Your task to perform on an android device: turn on javascript in the chrome app Image 0: 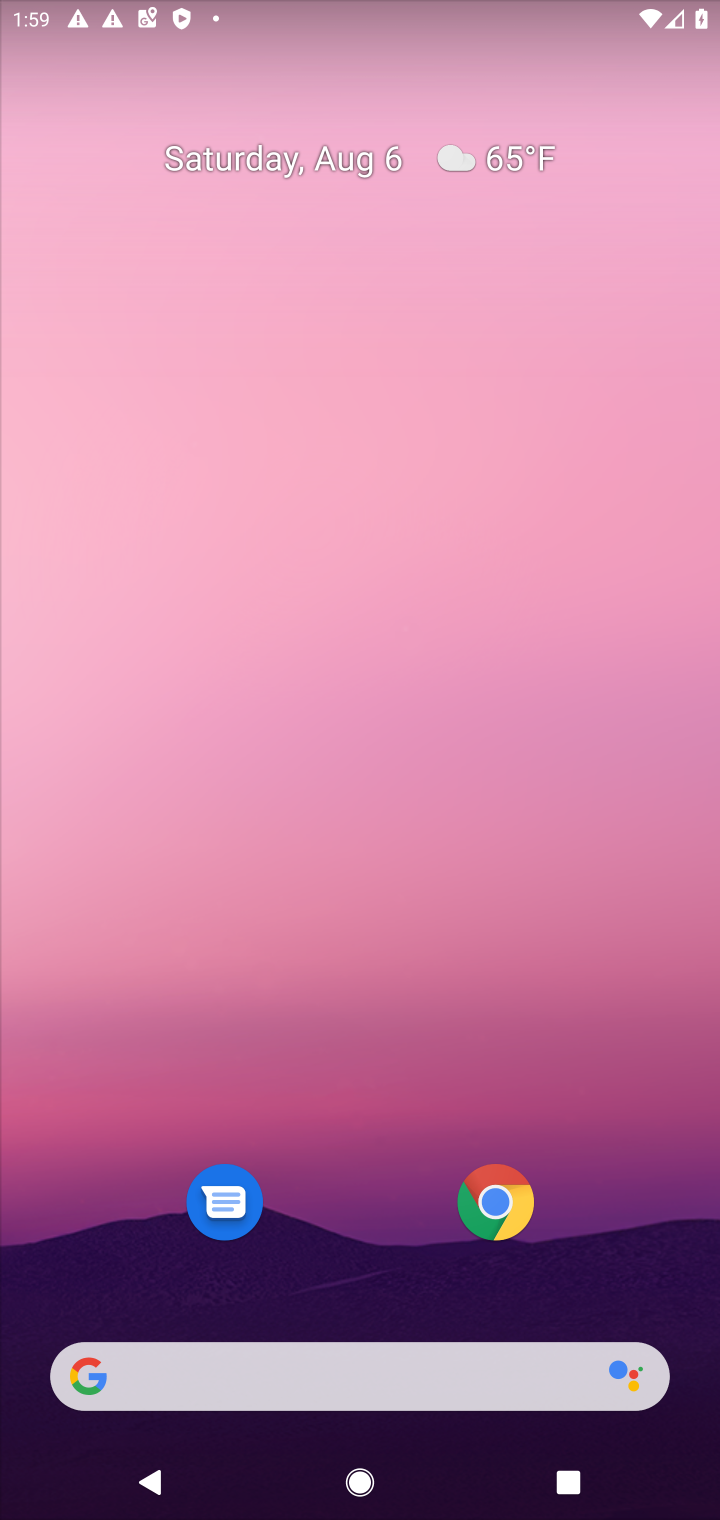
Step 0: click (505, 1218)
Your task to perform on an android device: turn on javascript in the chrome app Image 1: 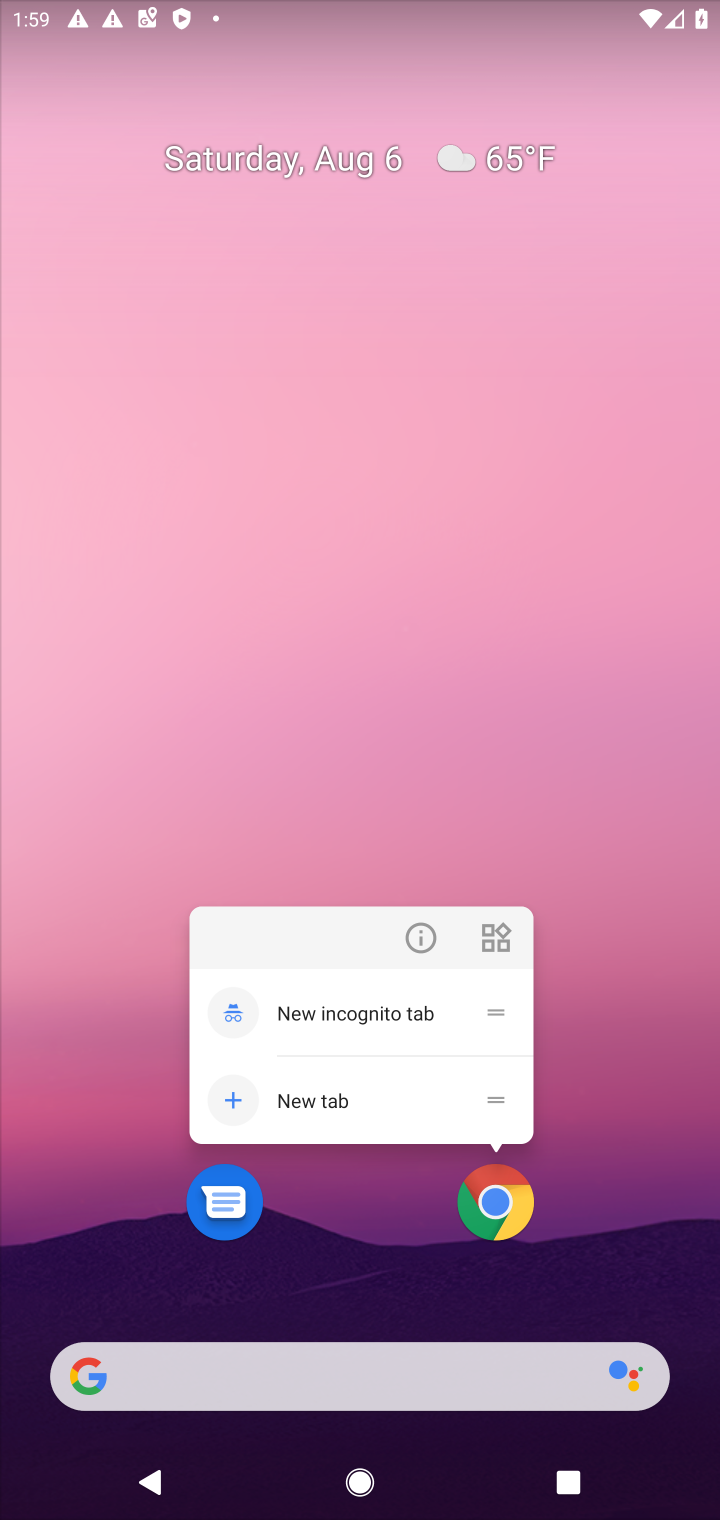
Step 1: click (503, 1191)
Your task to perform on an android device: turn on javascript in the chrome app Image 2: 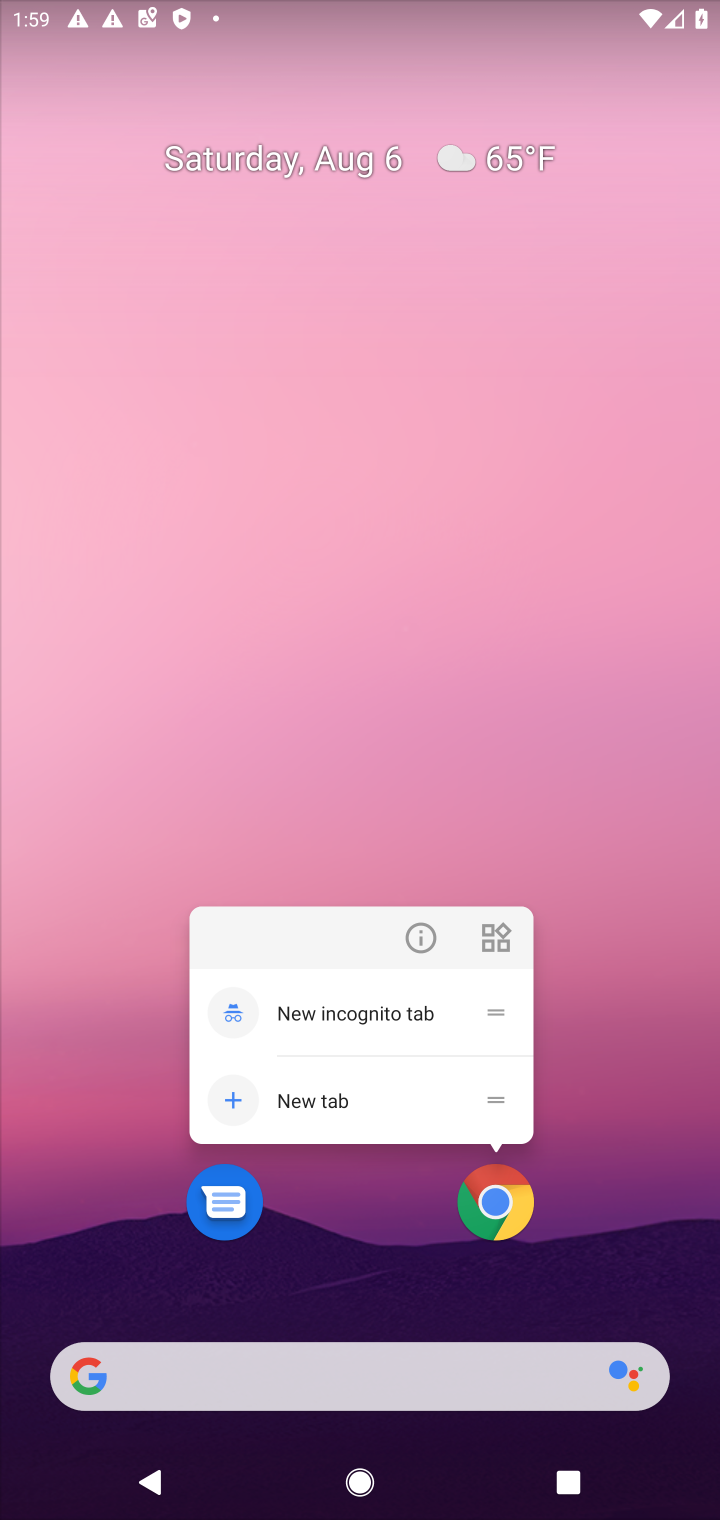
Step 2: click (503, 1191)
Your task to perform on an android device: turn on javascript in the chrome app Image 3: 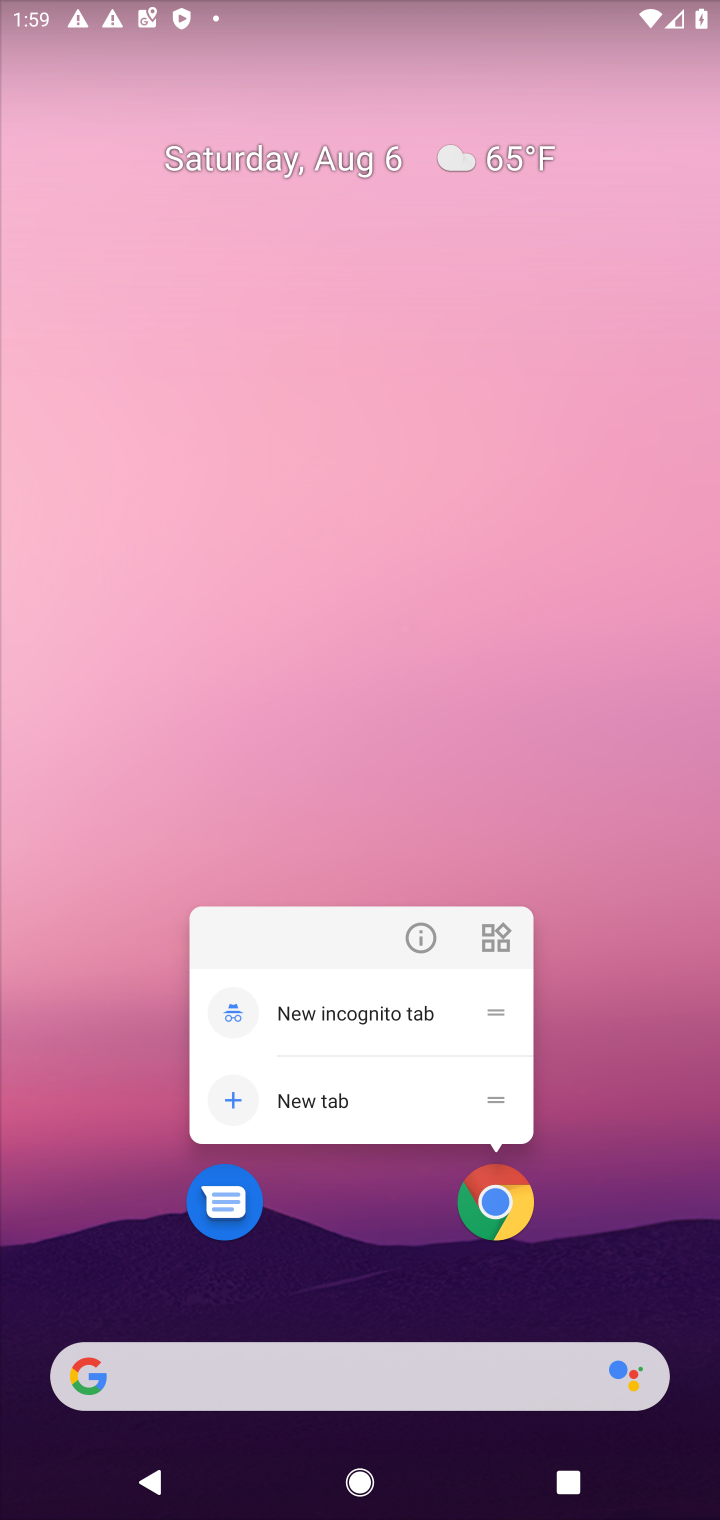
Step 3: click (503, 1207)
Your task to perform on an android device: turn on javascript in the chrome app Image 4: 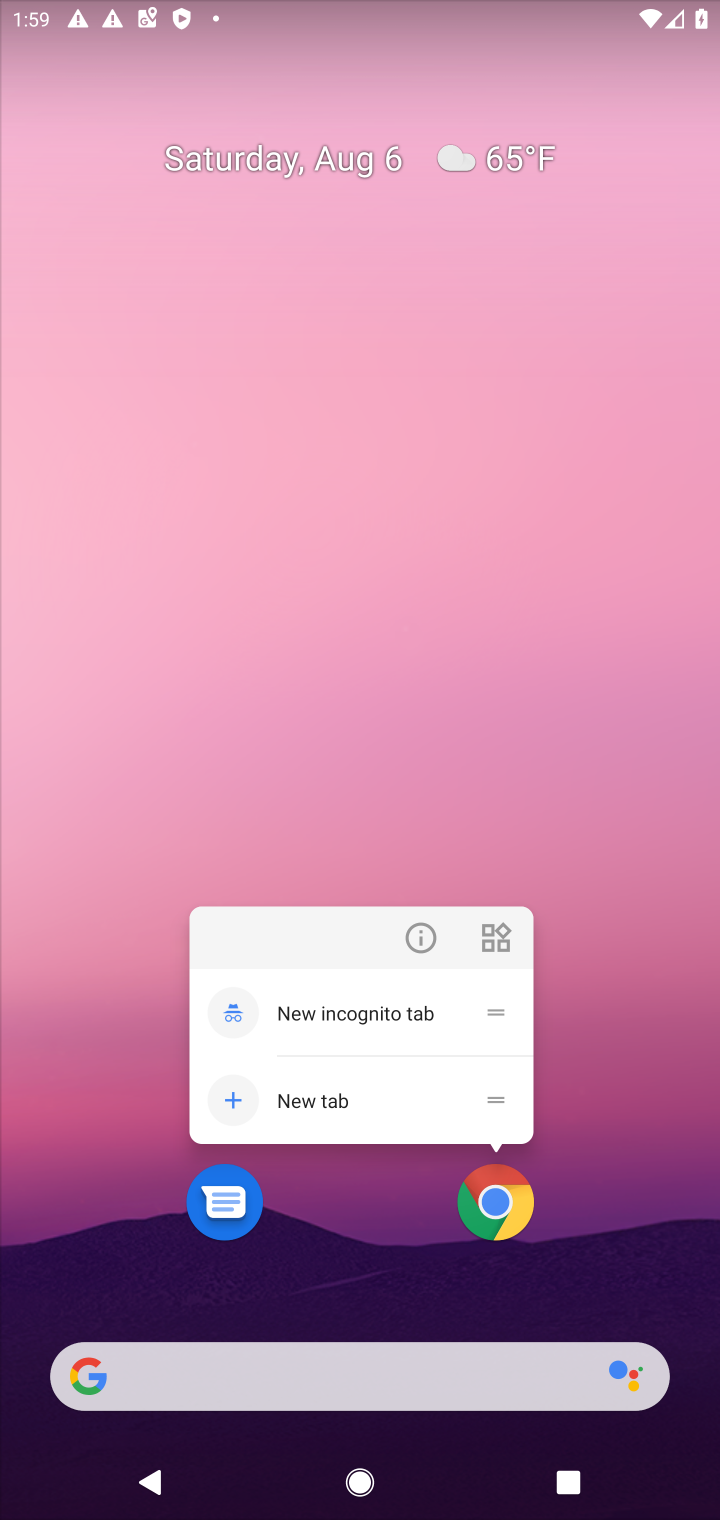
Step 4: click (503, 1207)
Your task to perform on an android device: turn on javascript in the chrome app Image 5: 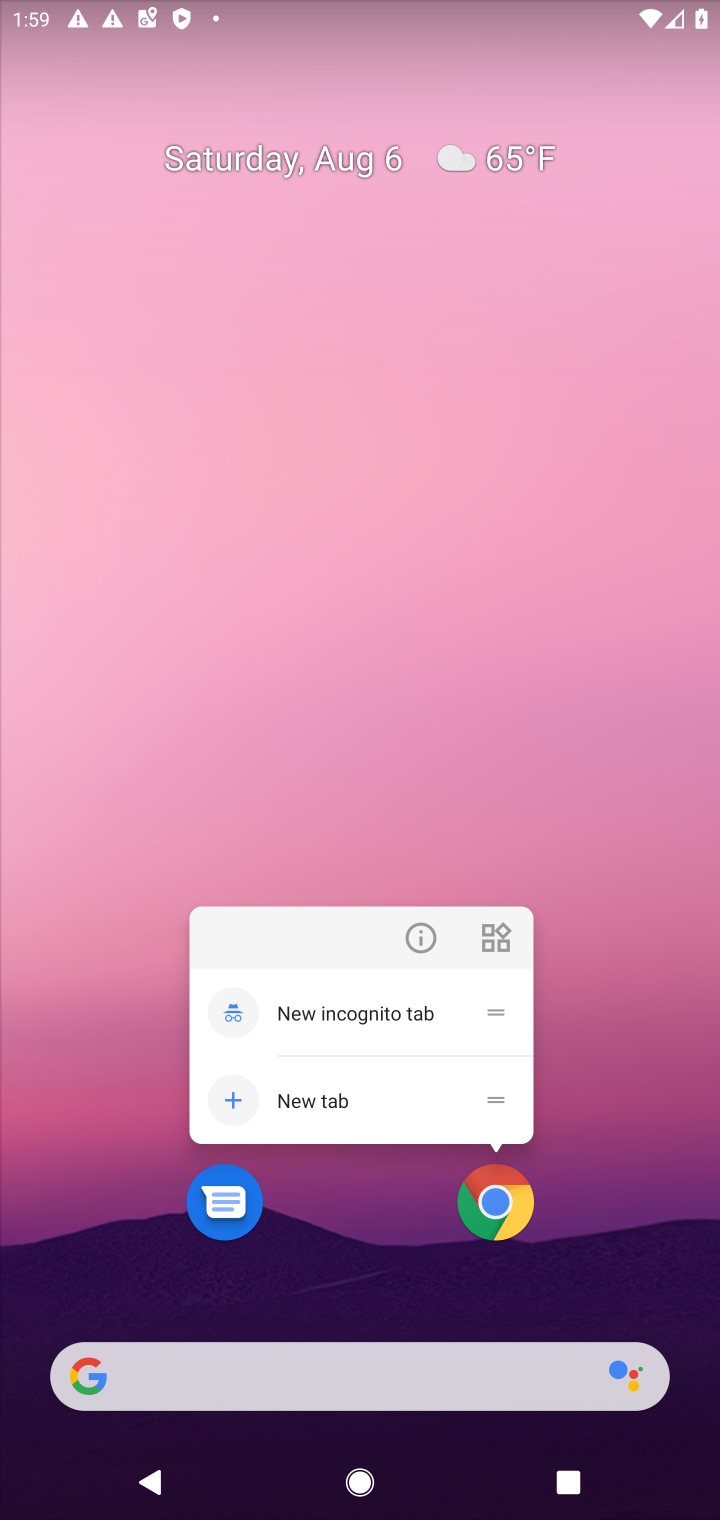
Step 5: click (459, 1159)
Your task to perform on an android device: turn on javascript in the chrome app Image 6: 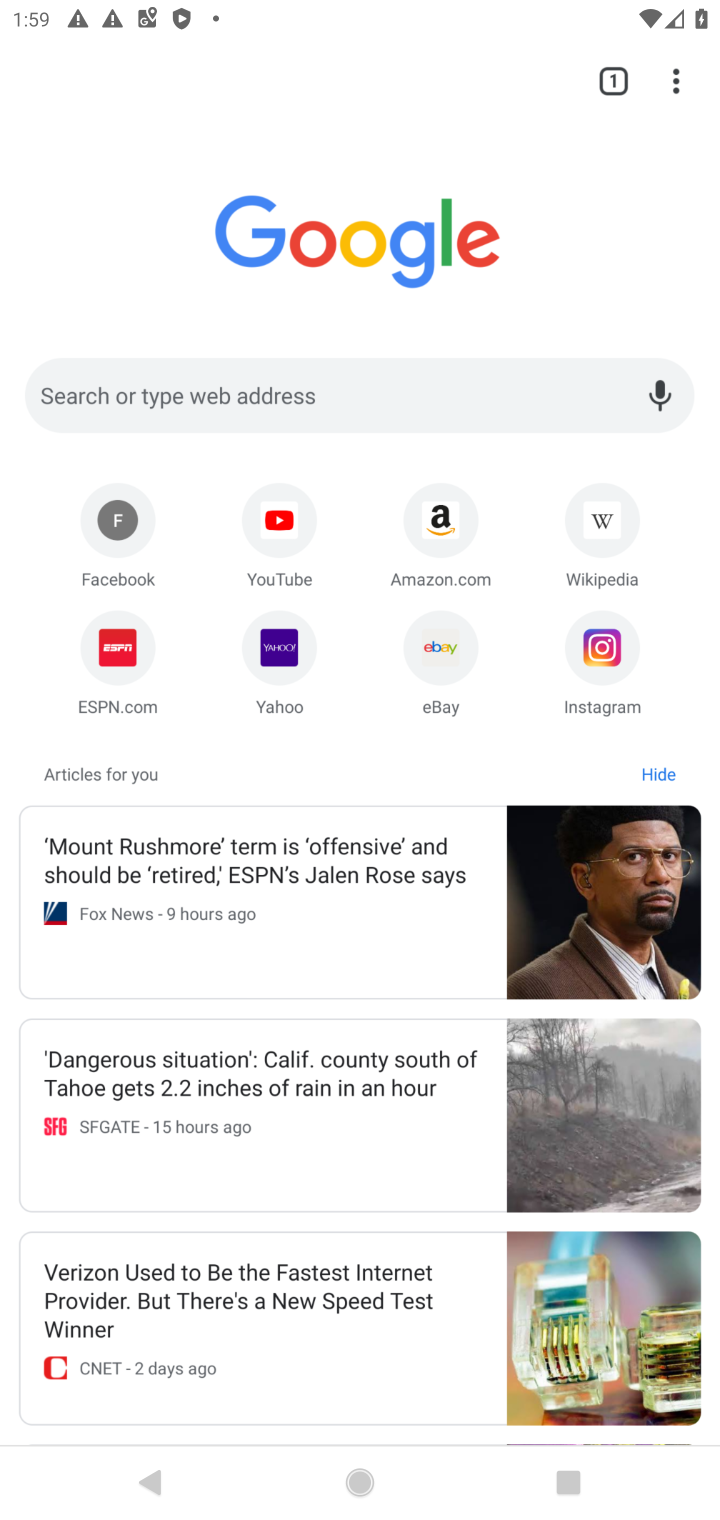
Step 6: click (486, 1222)
Your task to perform on an android device: turn on javascript in the chrome app Image 7: 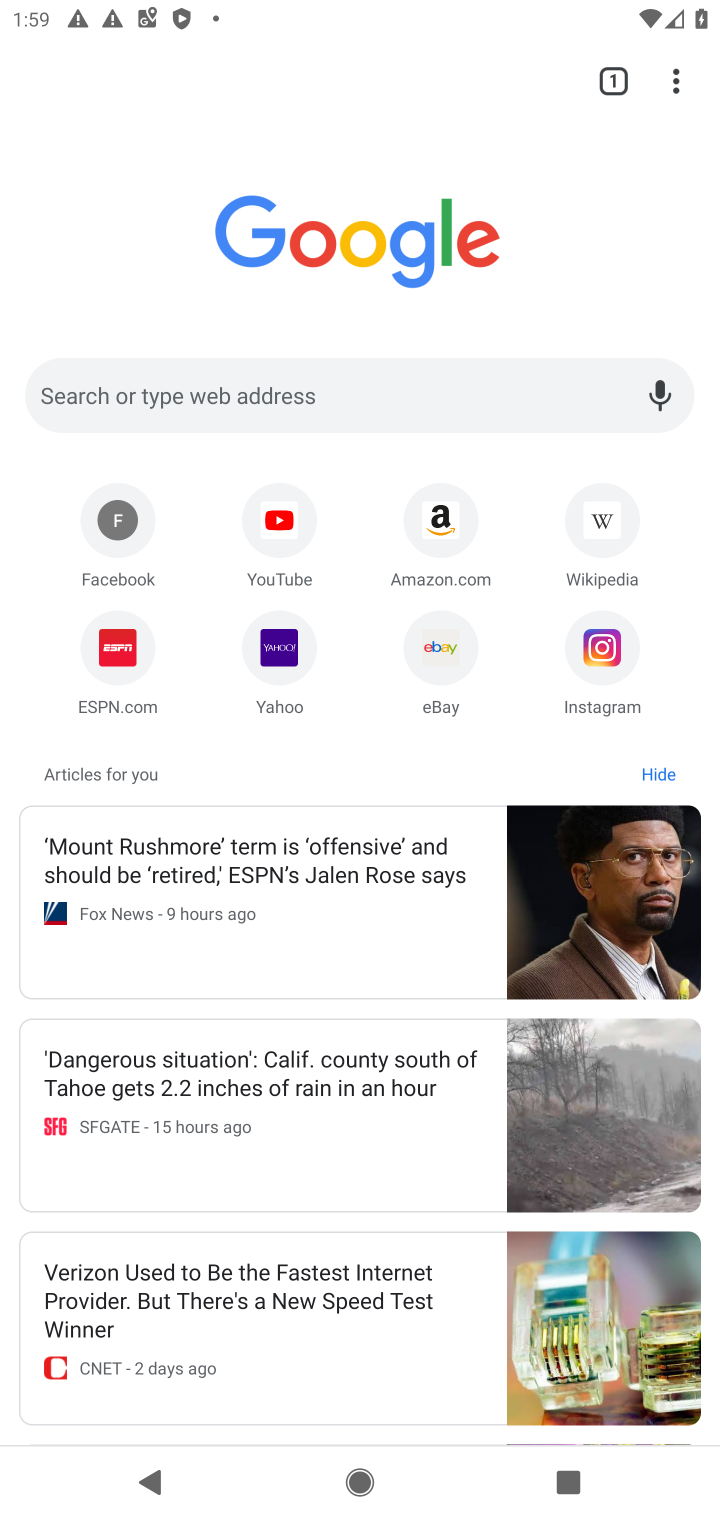
Step 7: click (685, 78)
Your task to perform on an android device: turn on javascript in the chrome app Image 8: 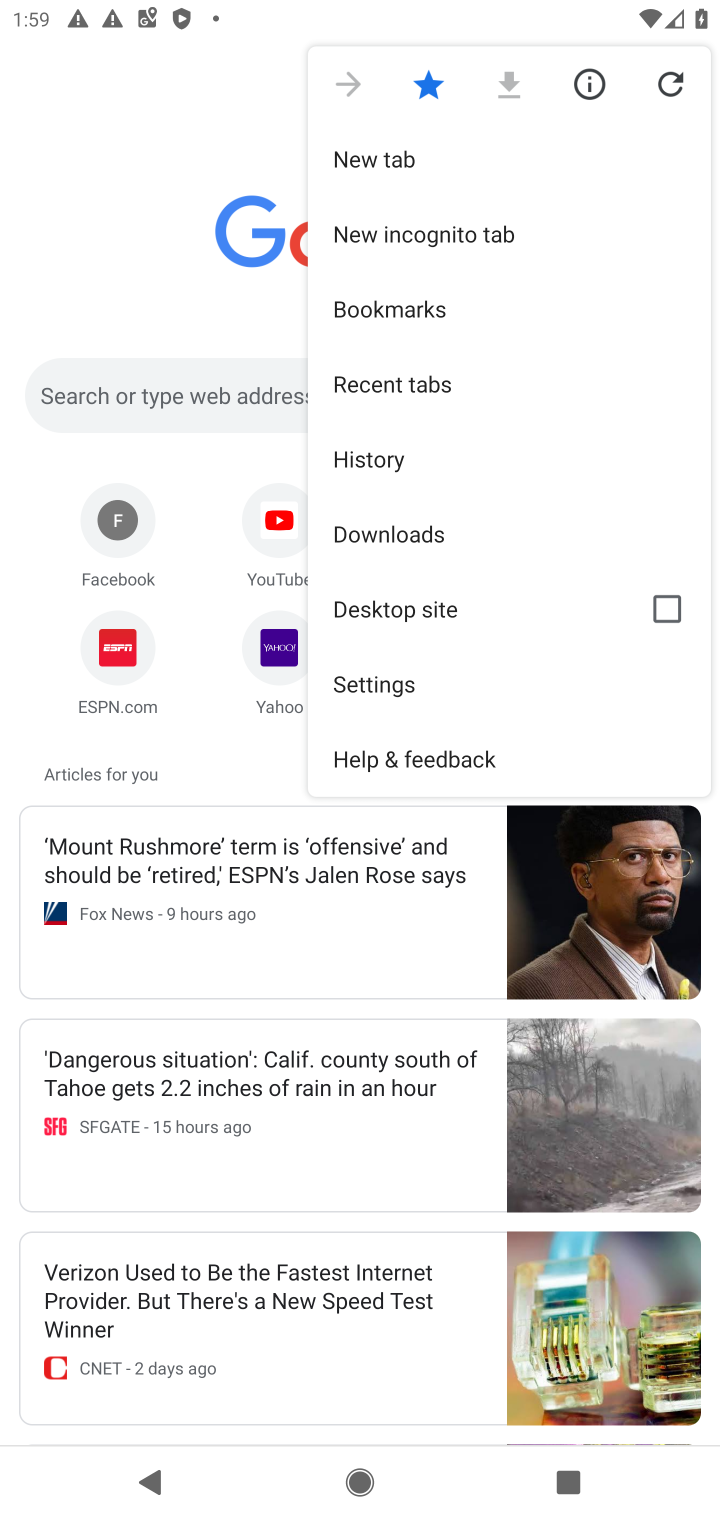
Step 8: click (374, 688)
Your task to perform on an android device: turn on javascript in the chrome app Image 9: 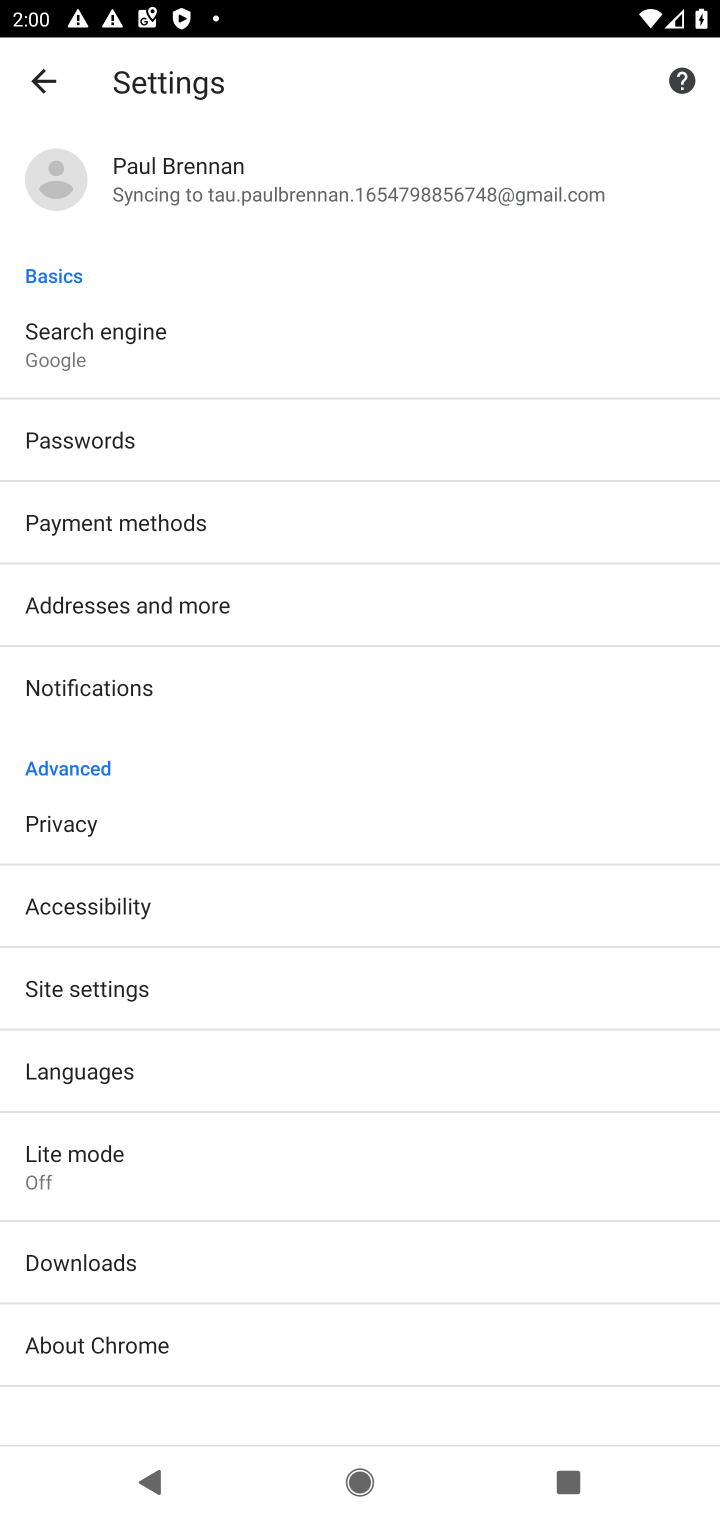
Step 9: click (63, 1000)
Your task to perform on an android device: turn on javascript in the chrome app Image 10: 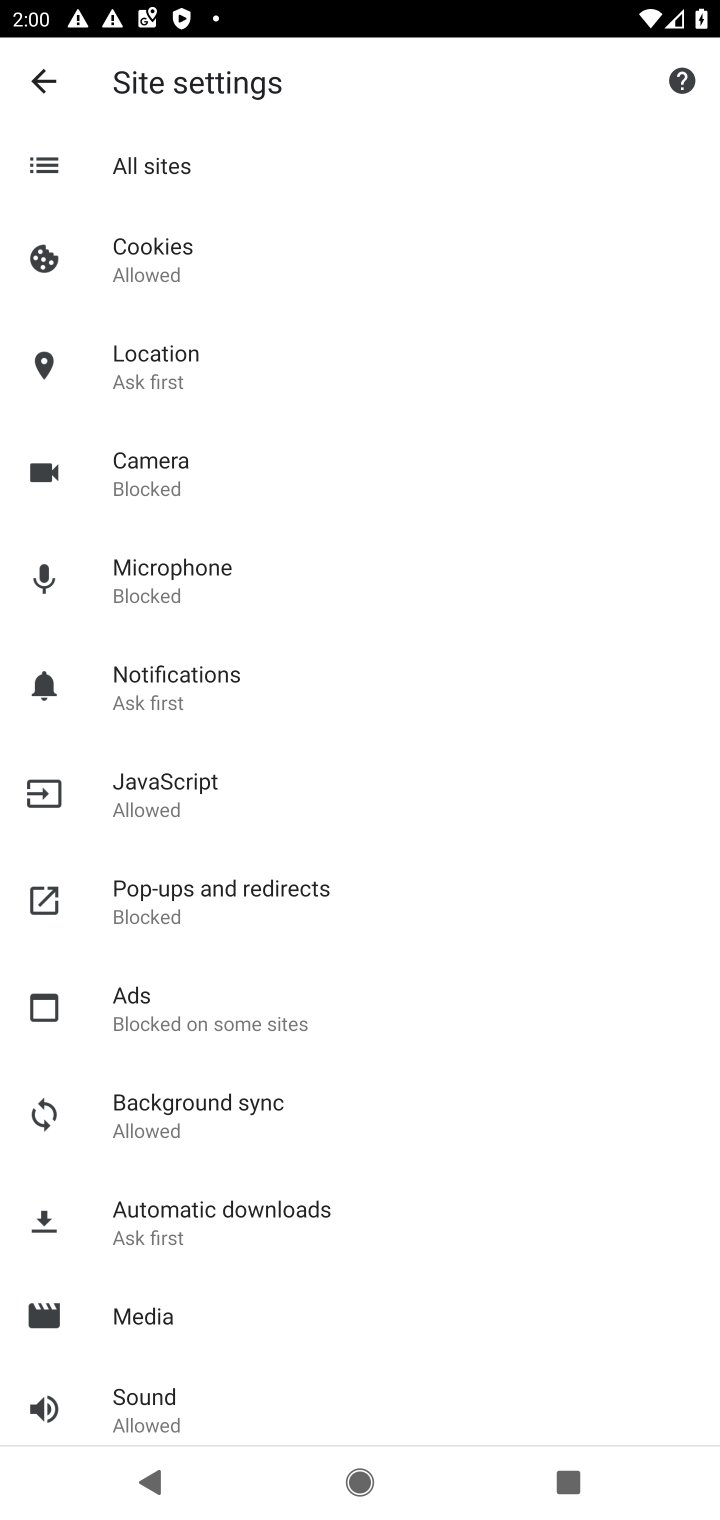
Step 10: click (167, 812)
Your task to perform on an android device: turn on javascript in the chrome app Image 11: 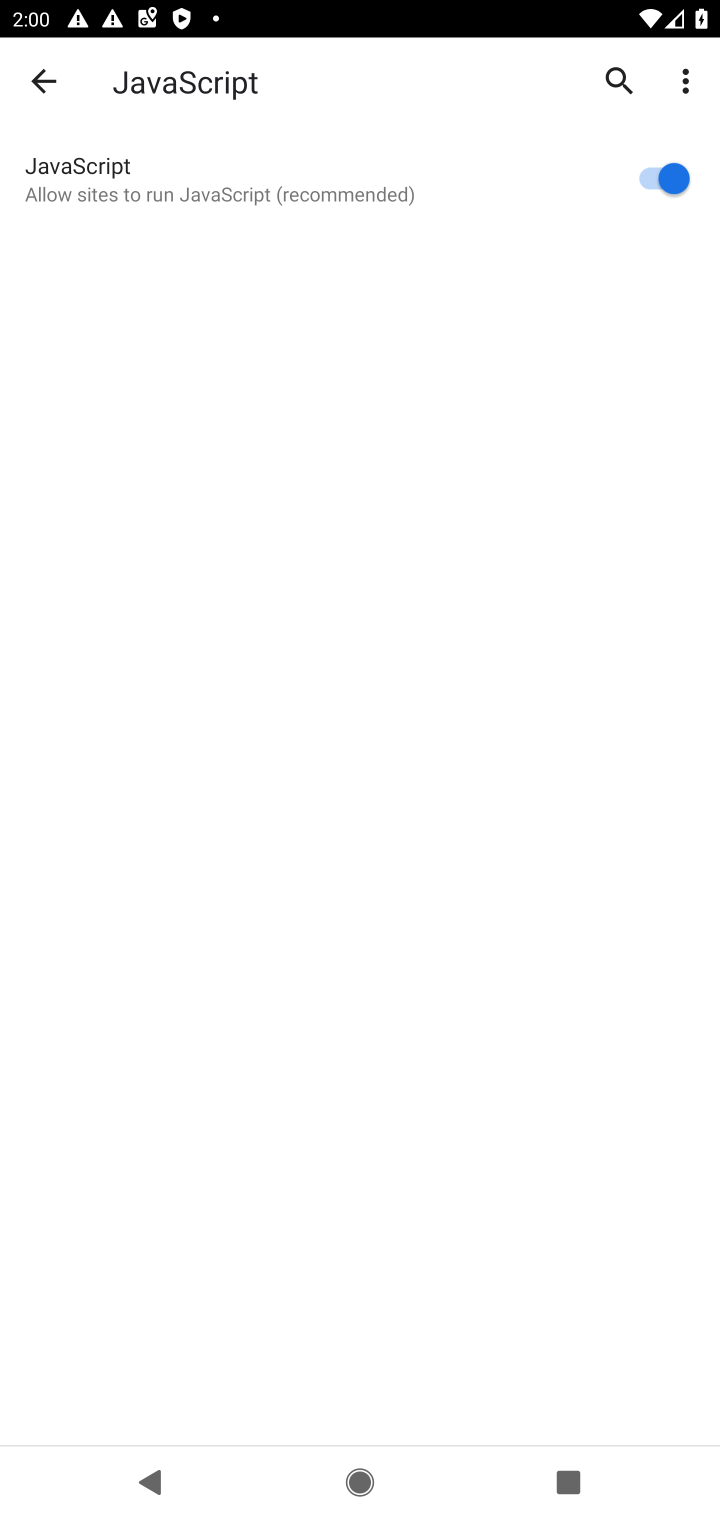
Step 11: task complete